Your task to perform on an android device: change keyboard looks Image 0: 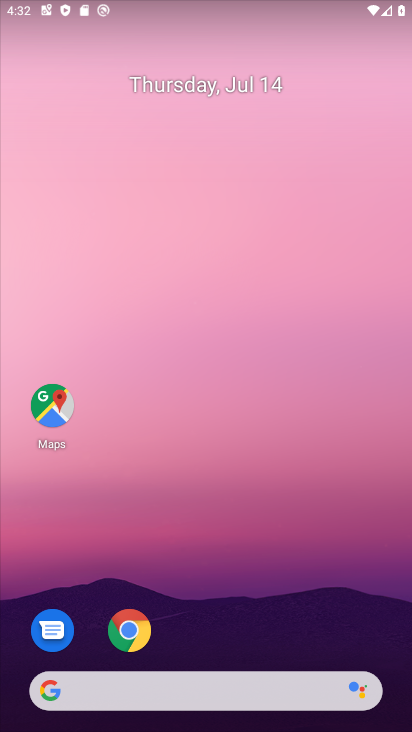
Step 0: drag from (297, 677) to (355, 14)
Your task to perform on an android device: change keyboard looks Image 1: 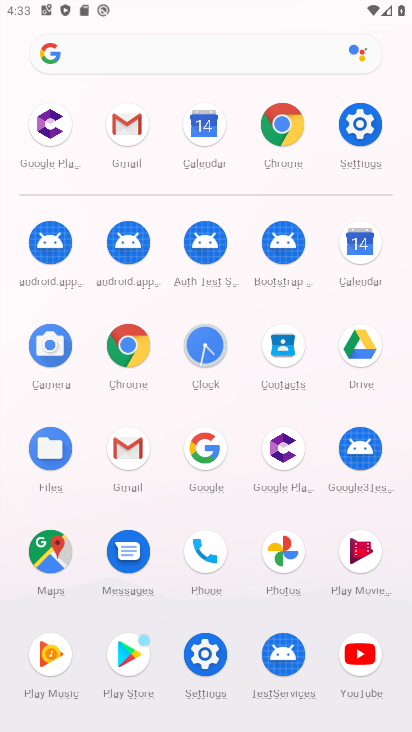
Step 1: click (363, 106)
Your task to perform on an android device: change keyboard looks Image 2: 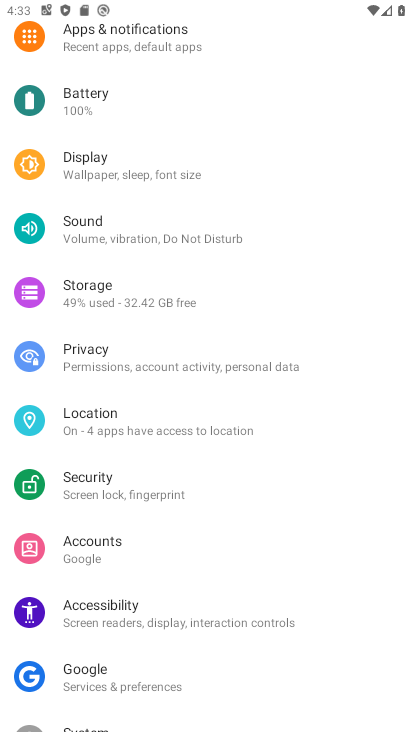
Step 2: drag from (168, 624) to (237, 269)
Your task to perform on an android device: change keyboard looks Image 3: 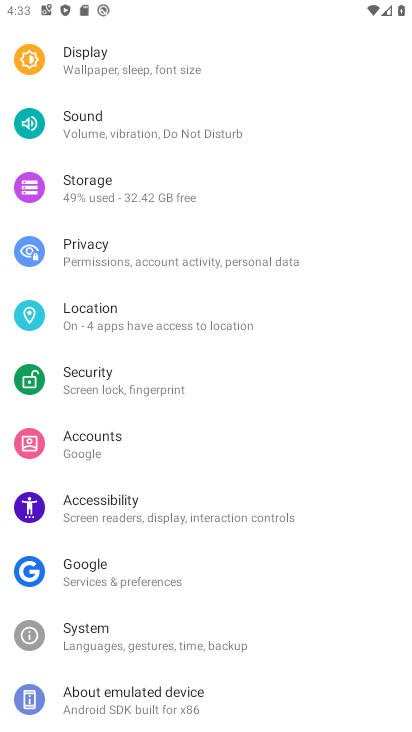
Step 3: click (152, 637)
Your task to perform on an android device: change keyboard looks Image 4: 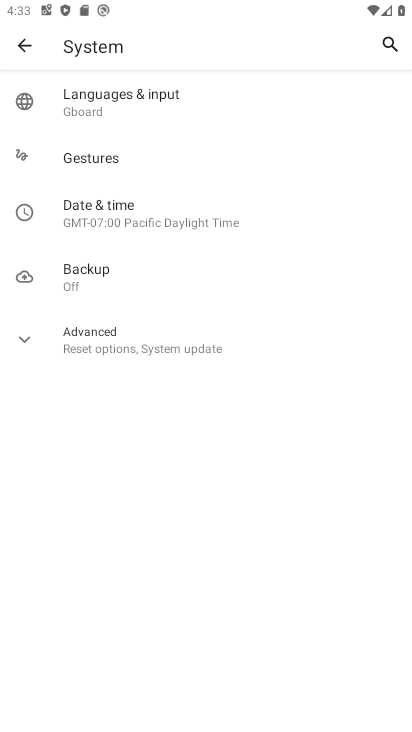
Step 4: click (153, 93)
Your task to perform on an android device: change keyboard looks Image 5: 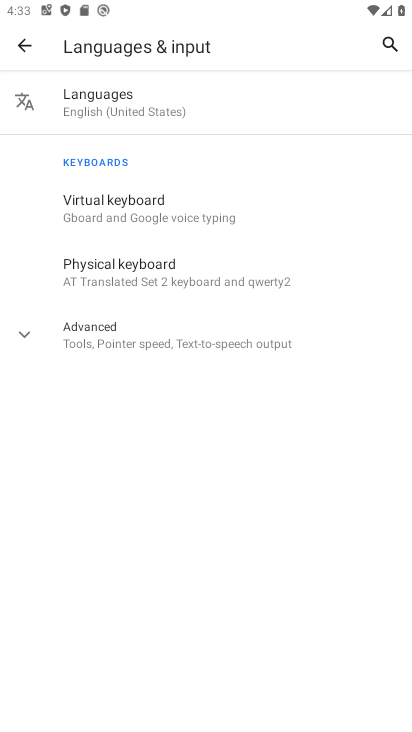
Step 5: click (125, 214)
Your task to perform on an android device: change keyboard looks Image 6: 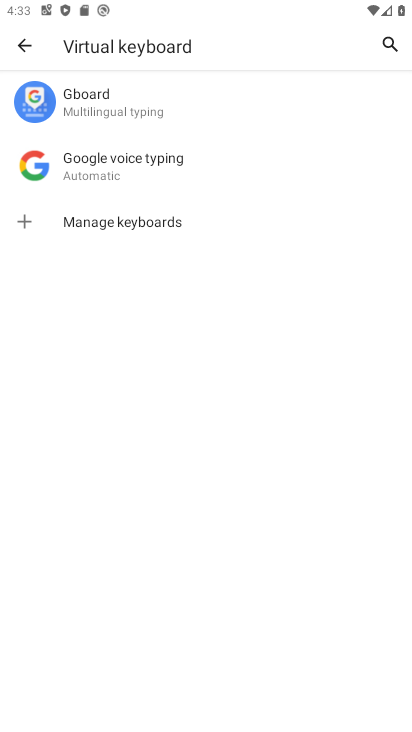
Step 6: click (139, 113)
Your task to perform on an android device: change keyboard looks Image 7: 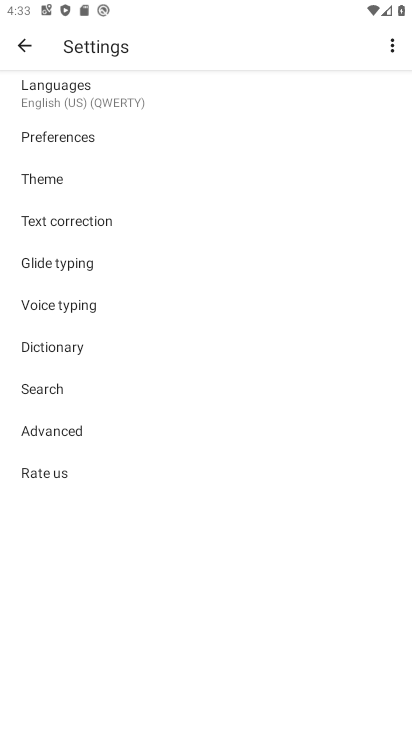
Step 7: click (125, 173)
Your task to perform on an android device: change keyboard looks Image 8: 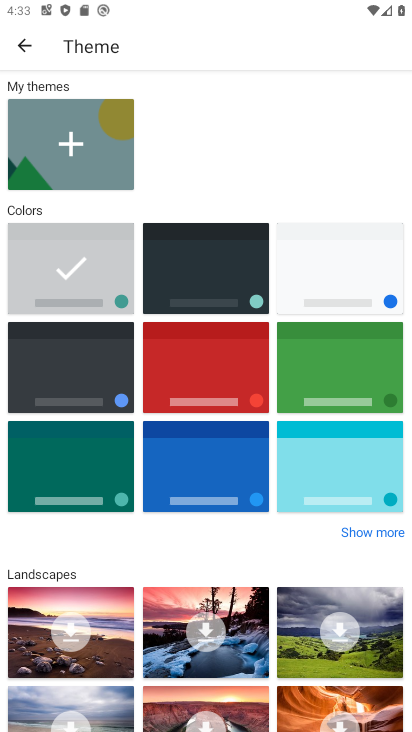
Step 8: click (335, 361)
Your task to perform on an android device: change keyboard looks Image 9: 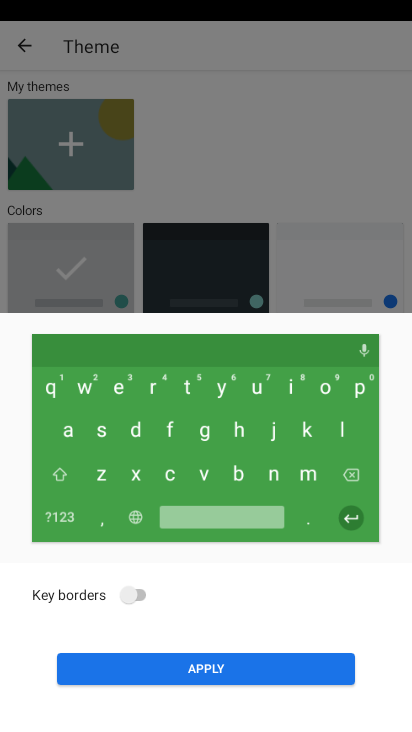
Step 9: click (274, 660)
Your task to perform on an android device: change keyboard looks Image 10: 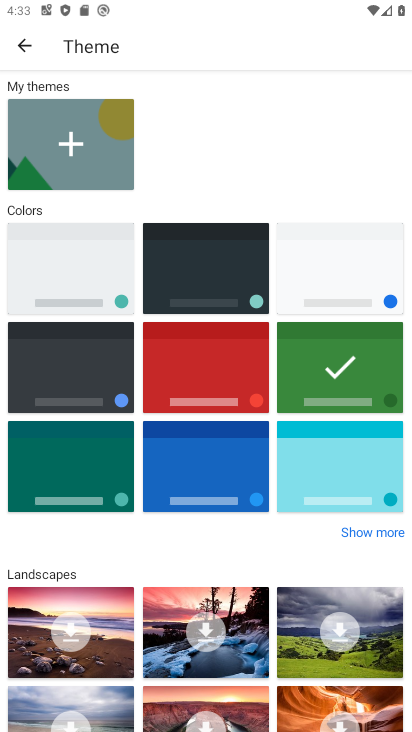
Step 10: click (339, 379)
Your task to perform on an android device: change keyboard looks Image 11: 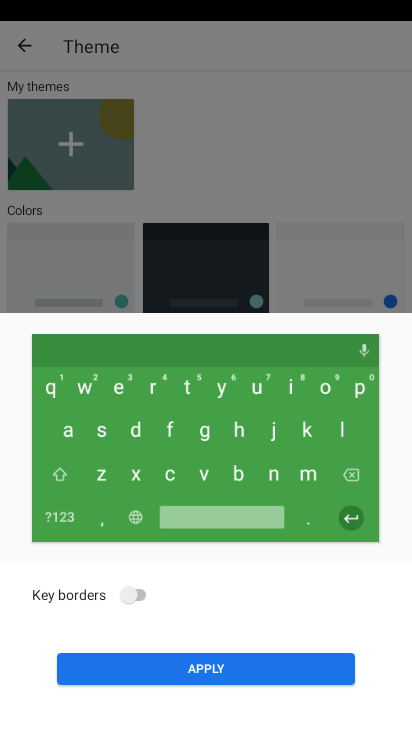
Step 11: click (229, 662)
Your task to perform on an android device: change keyboard looks Image 12: 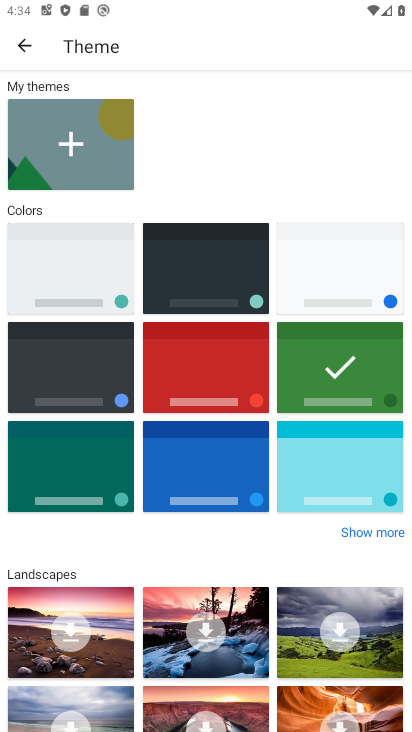
Step 12: task complete